Your task to perform on an android device: Open calendar and show me the second week of next month Image 0: 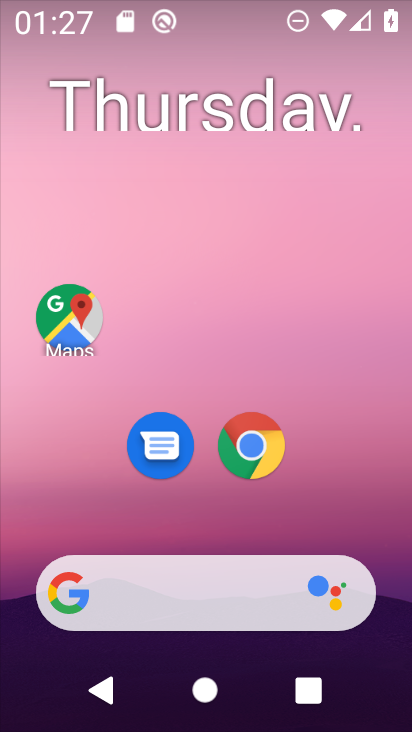
Step 0: click (208, 114)
Your task to perform on an android device: Open calendar and show me the second week of next month Image 1: 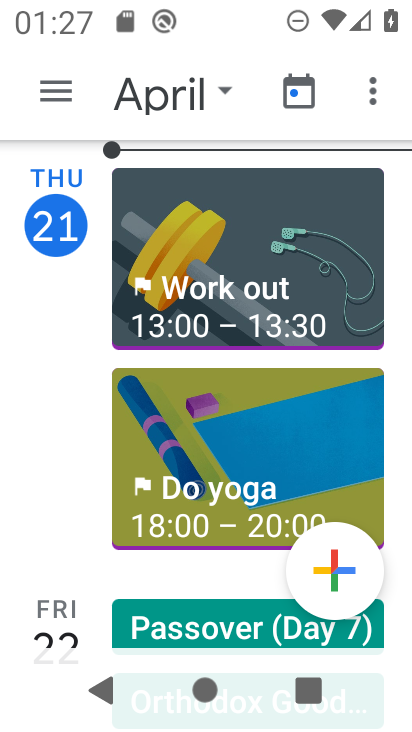
Step 1: click (164, 93)
Your task to perform on an android device: Open calendar and show me the second week of next month Image 2: 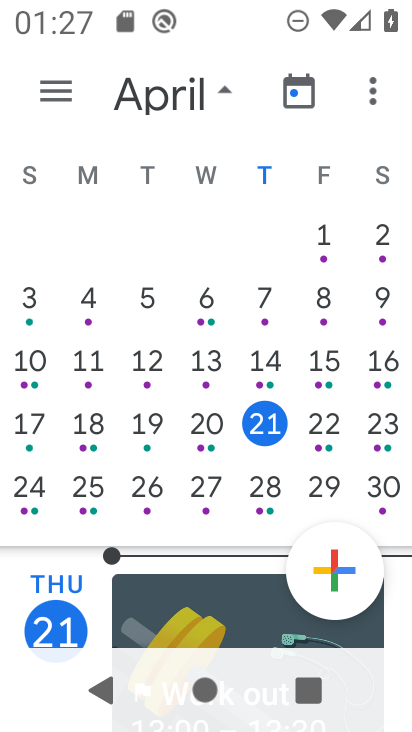
Step 2: click (209, 477)
Your task to perform on an android device: Open calendar and show me the second week of next month Image 3: 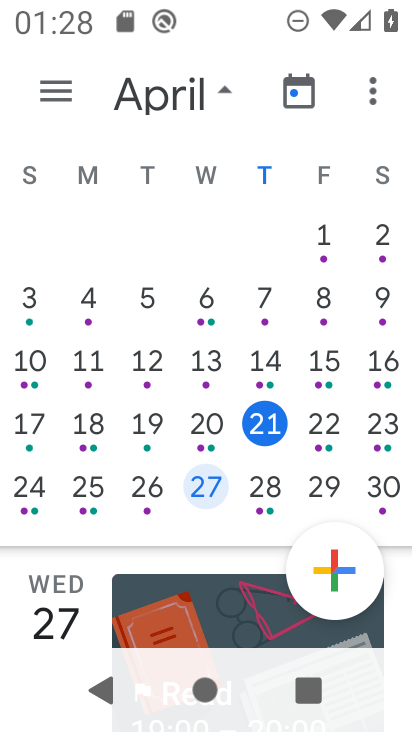
Step 3: task complete